Your task to perform on an android device: Open the web browser Image 0: 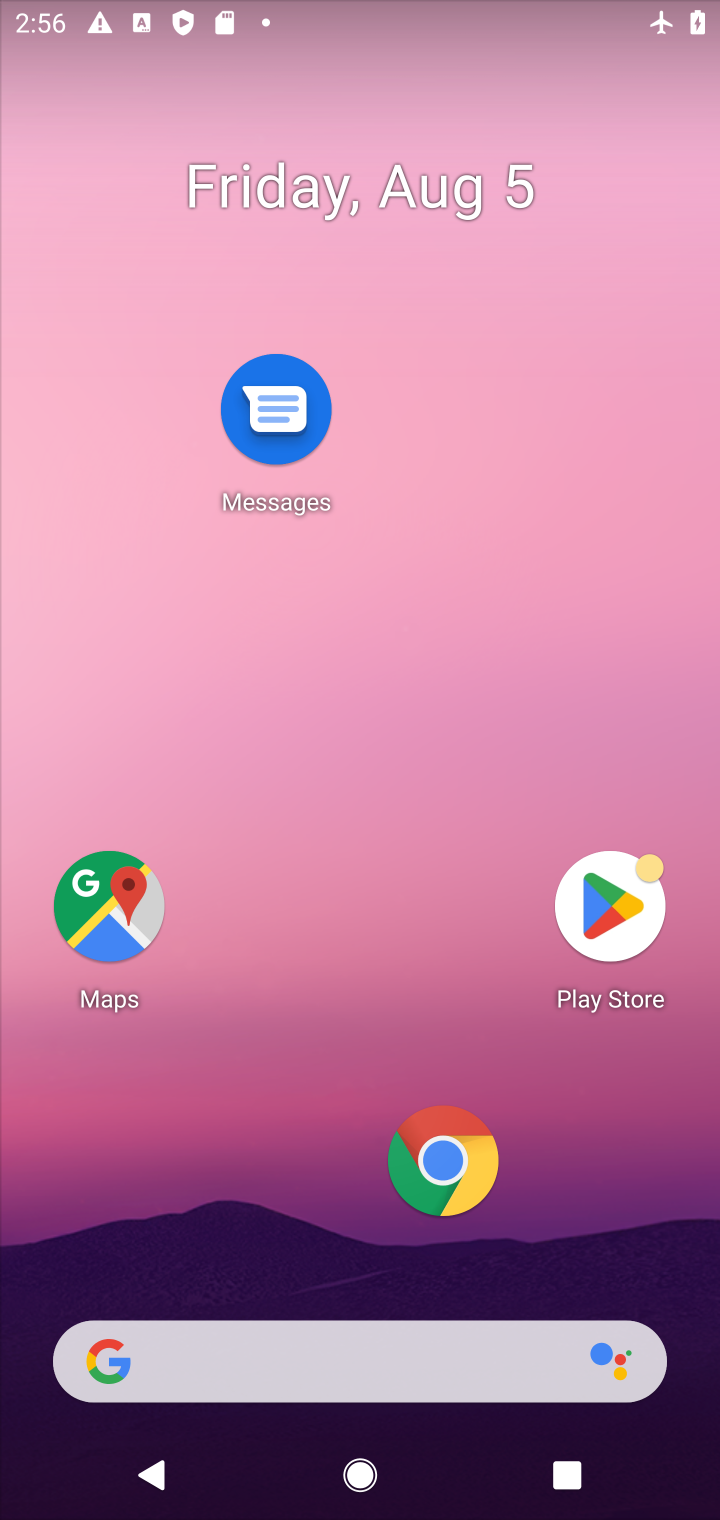
Step 0: click (453, 1189)
Your task to perform on an android device: Open the web browser Image 1: 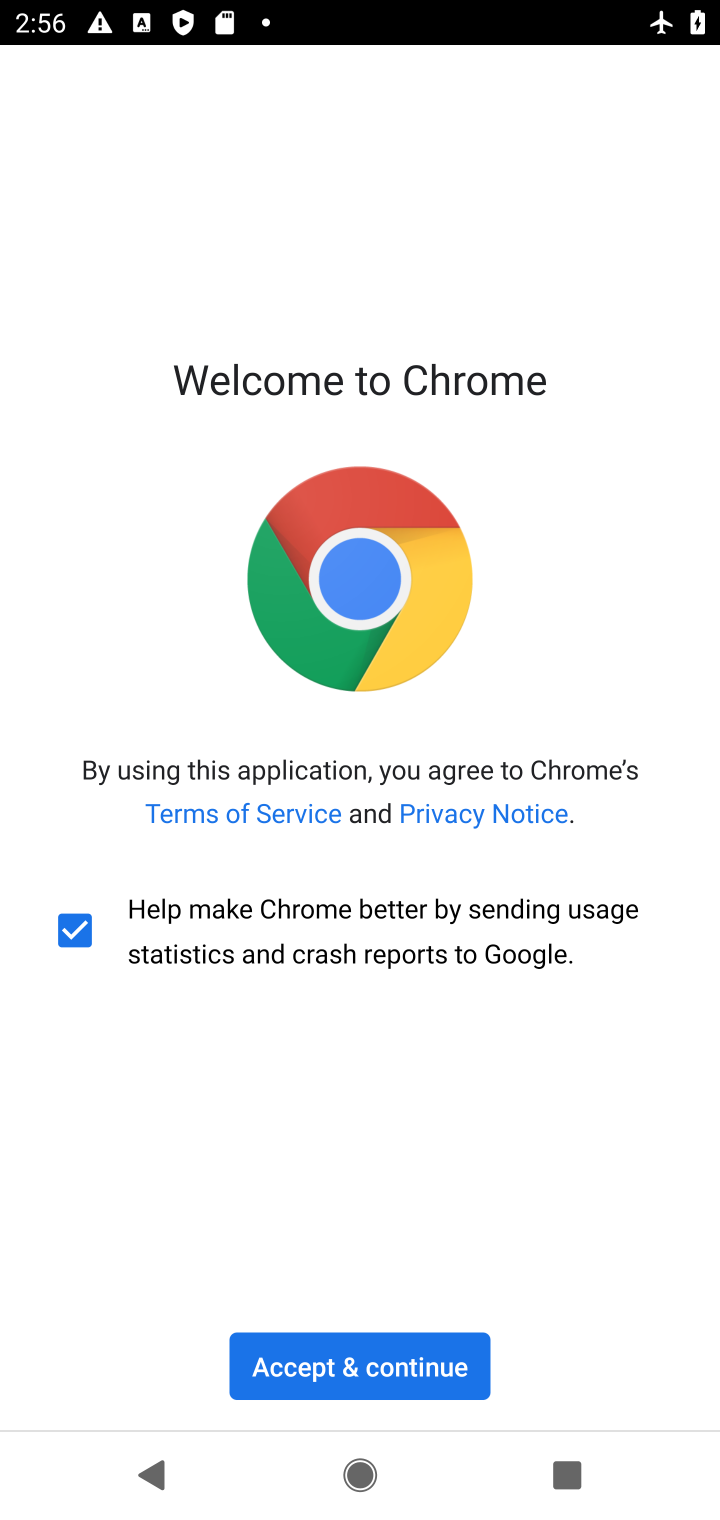
Step 1: click (406, 1353)
Your task to perform on an android device: Open the web browser Image 2: 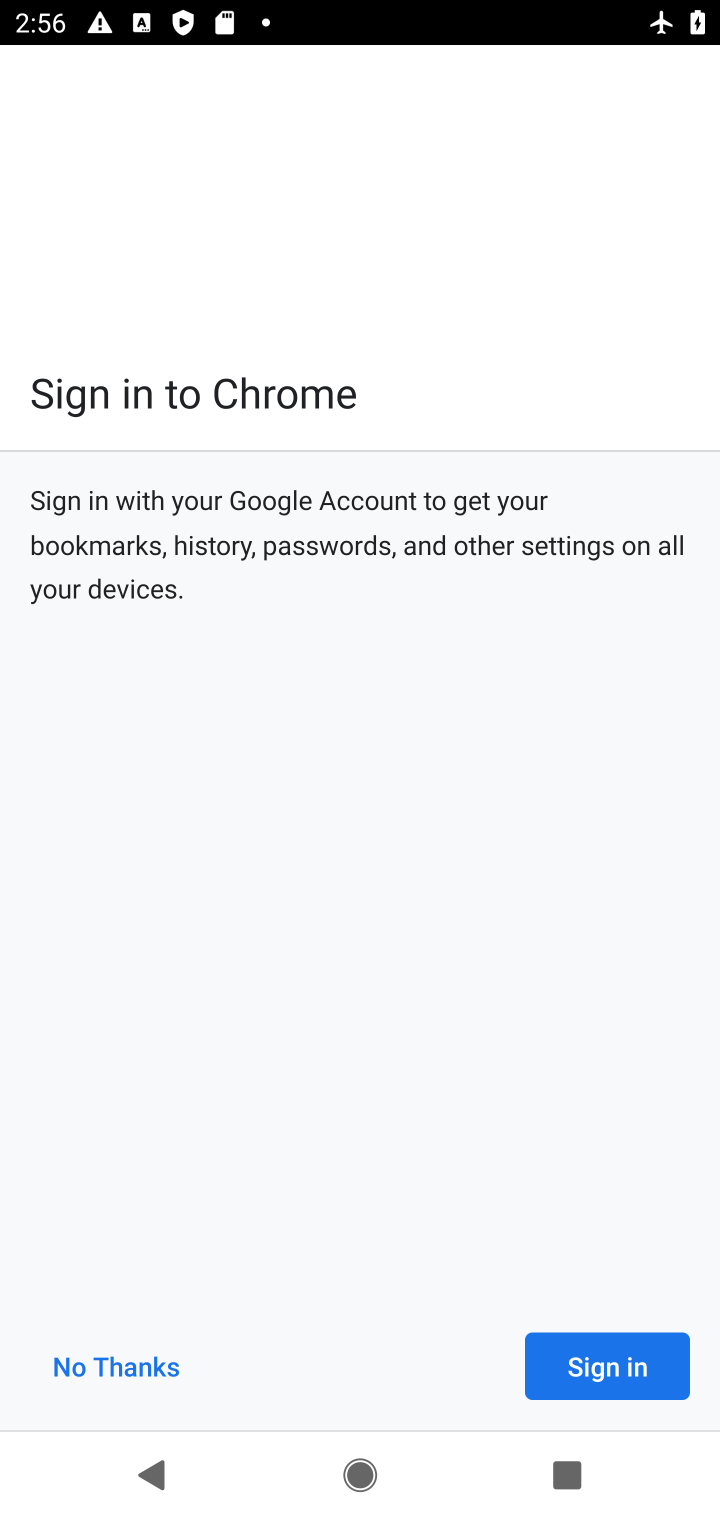
Step 2: task complete